Your task to perform on an android device: turn on translation in the chrome app Image 0: 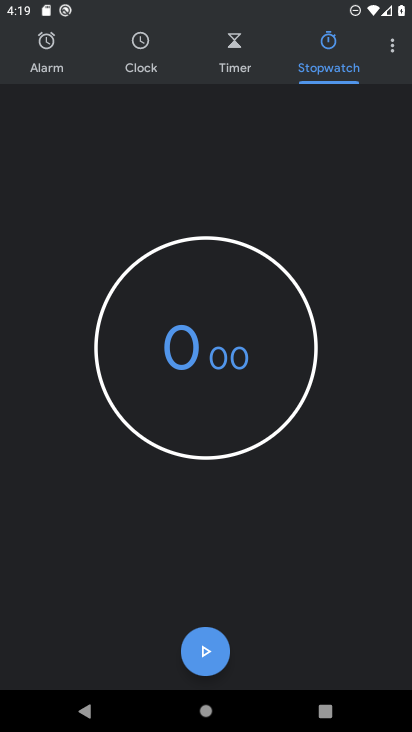
Step 0: press home button
Your task to perform on an android device: turn on translation in the chrome app Image 1: 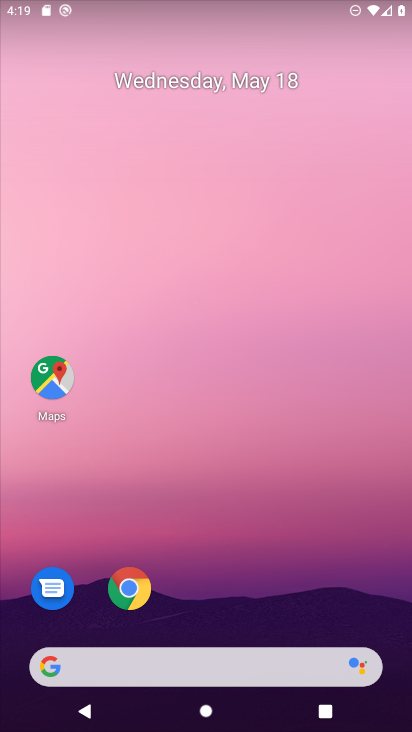
Step 1: click (131, 596)
Your task to perform on an android device: turn on translation in the chrome app Image 2: 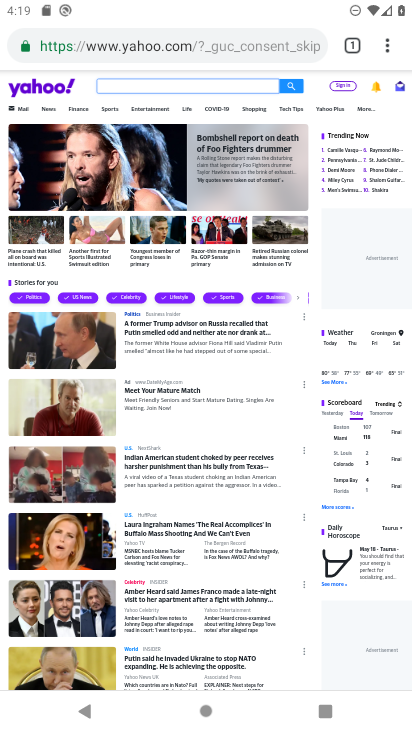
Step 2: click (380, 43)
Your task to perform on an android device: turn on translation in the chrome app Image 3: 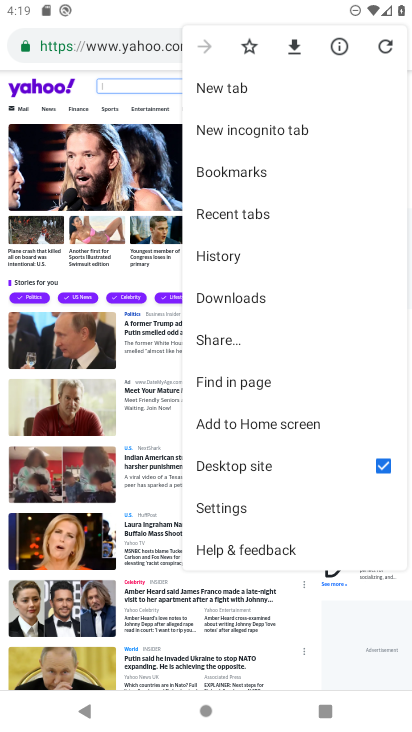
Step 3: click (263, 506)
Your task to perform on an android device: turn on translation in the chrome app Image 4: 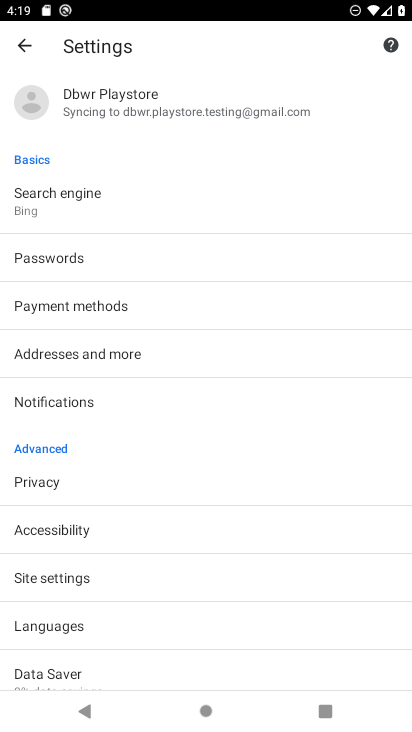
Step 4: drag from (158, 662) to (167, 280)
Your task to perform on an android device: turn on translation in the chrome app Image 5: 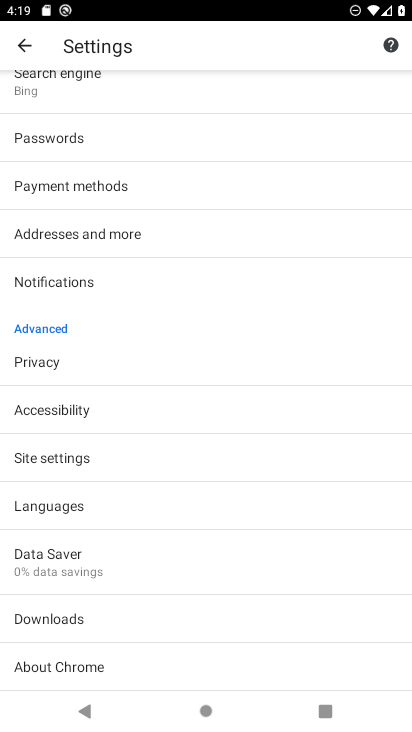
Step 5: click (140, 517)
Your task to perform on an android device: turn on translation in the chrome app Image 6: 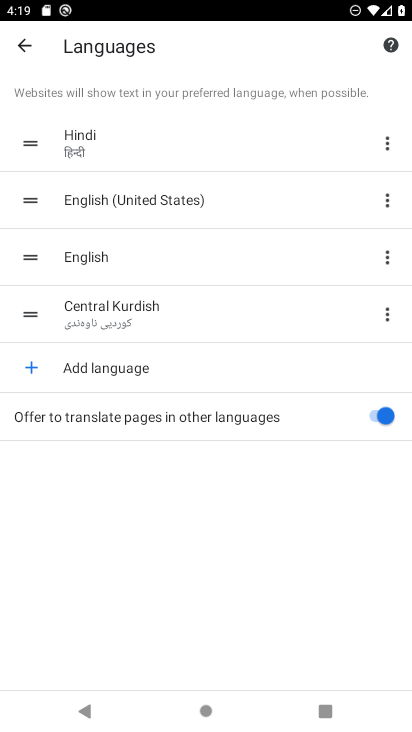
Step 6: click (343, 459)
Your task to perform on an android device: turn on translation in the chrome app Image 7: 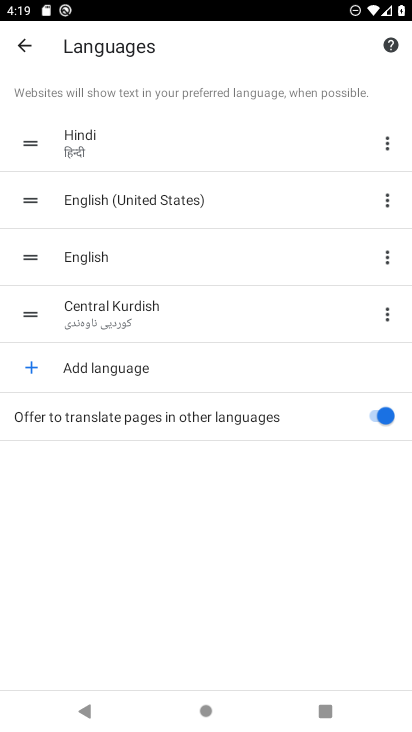
Step 7: task complete